Your task to perform on an android device: add a contact Image 0: 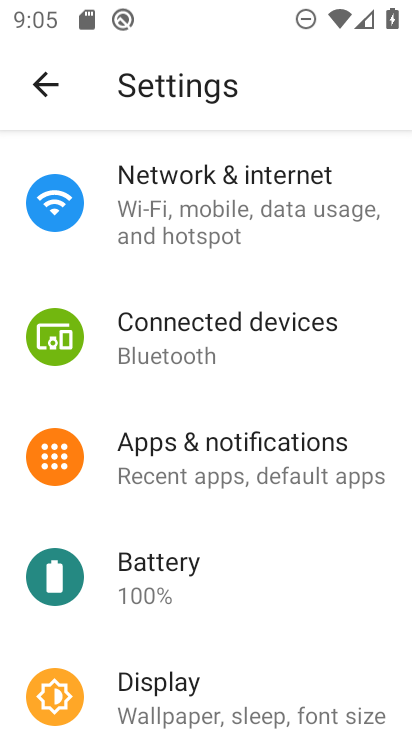
Step 0: press home button
Your task to perform on an android device: add a contact Image 1: 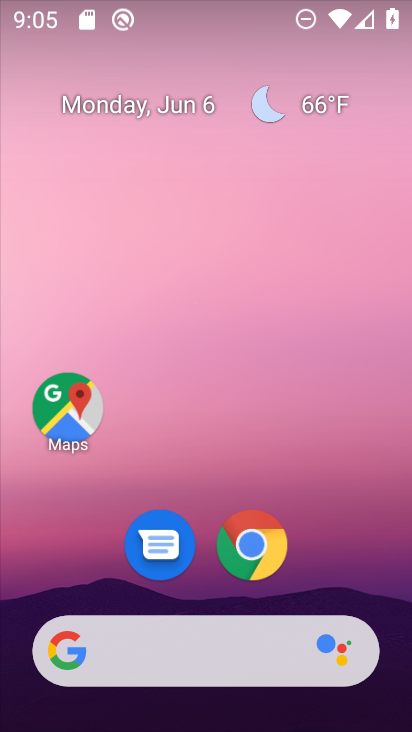
Step 1: drag from (199, 594) to (246, 212)
Your task to perform on an android device: add a contact Image 2: 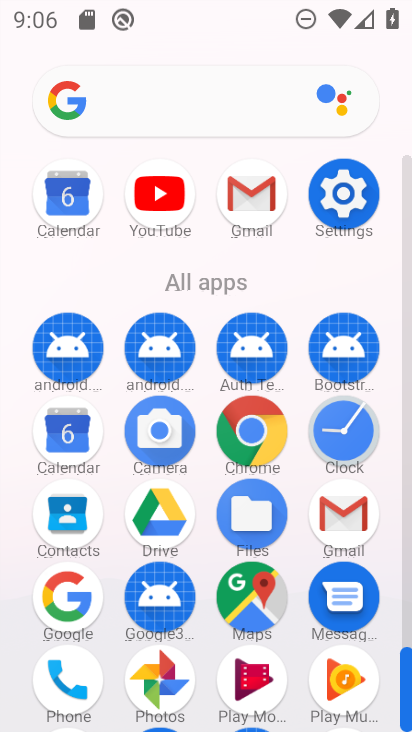
Step 2: click (63, 528)
Your task to perform on an android device: add a contact Image 3: 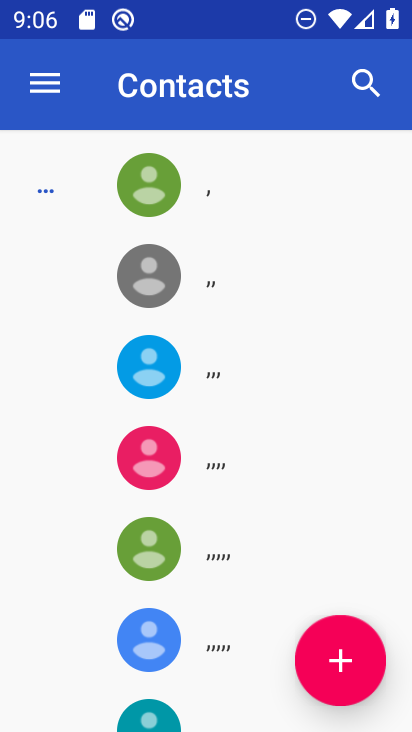
Step 3: click (325, 655)
Your task to perform on an android device: add a contact Image 4: 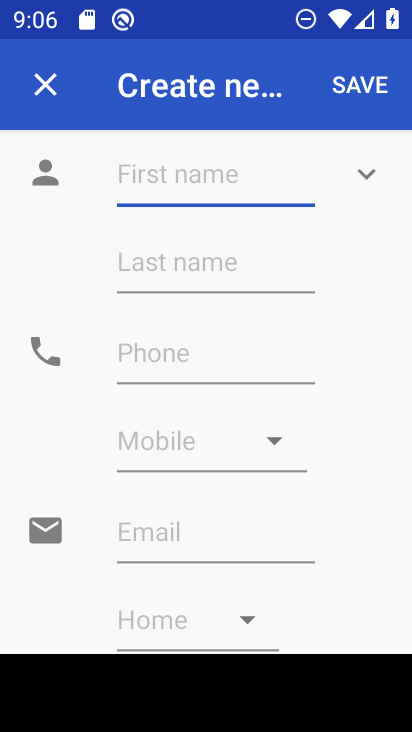
Step 4: type "dream"
Your task to perform on an android device: add a contact Image 5: 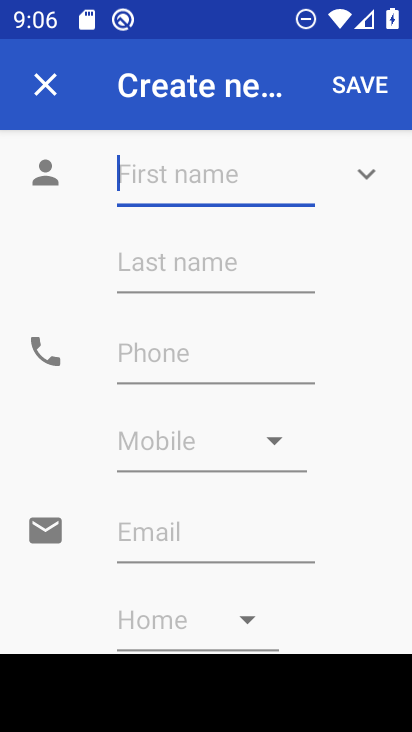
Step 5: click (182, 271)
Your task to perform on an android device: add a contact Image 6: 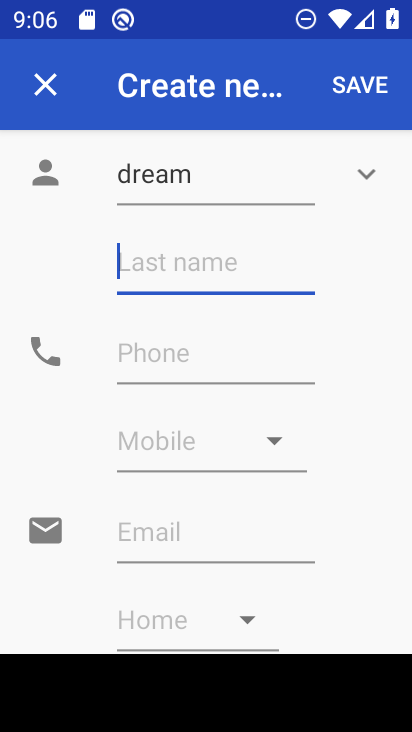
Step 6: type "girl"
Your task to perform on an android device: add a contact Image 7: 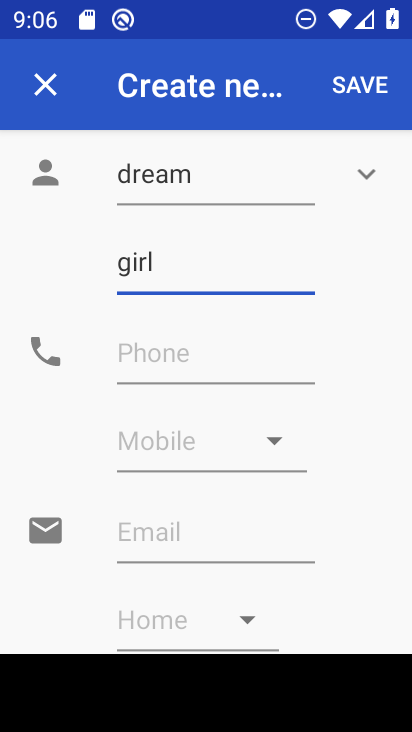
Step 7: click (354, 78)
Your task to perform on an android device: add a contact Image 8: 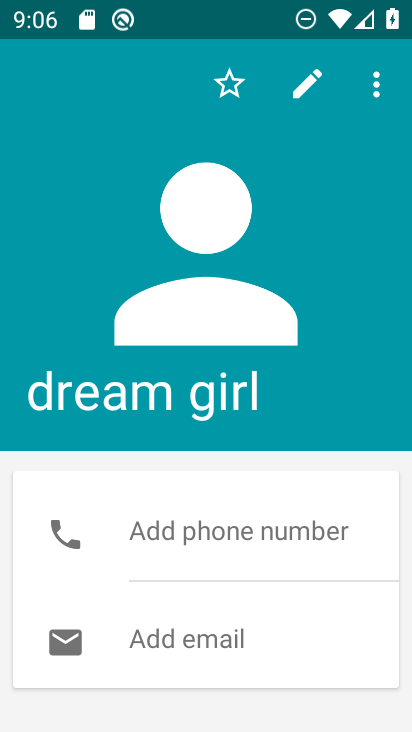
Step 8: task complete